Your task to perform on an android device: Find coffee shops on Maps Image 0: 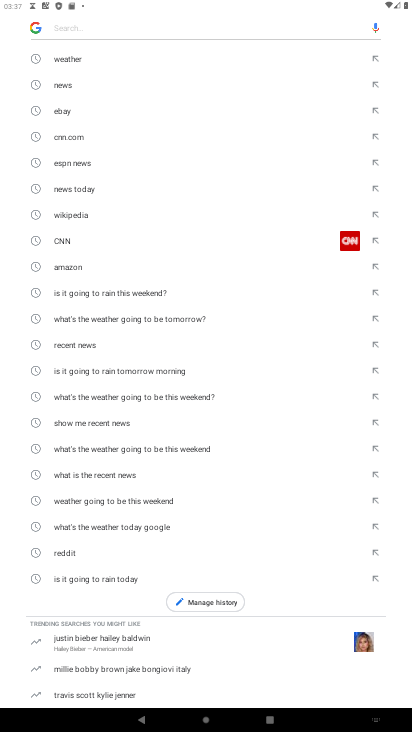
Step 0: press home button
Your task to perform on an android device: Find coffee shops on Maps Image 1: 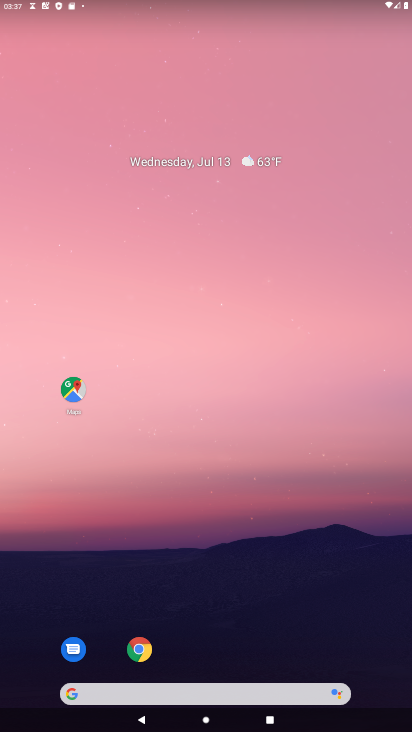
Step 1: click (66, 384)
Your task to perform on an android device: Find coffee shops on Maps Image 2: 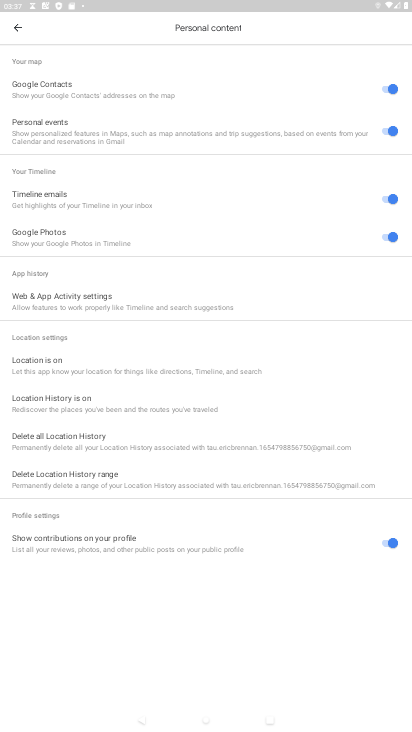
Step 2: click (20, 32)
Your task to perform on an android device: Find coffee shops on Maps Image 3: 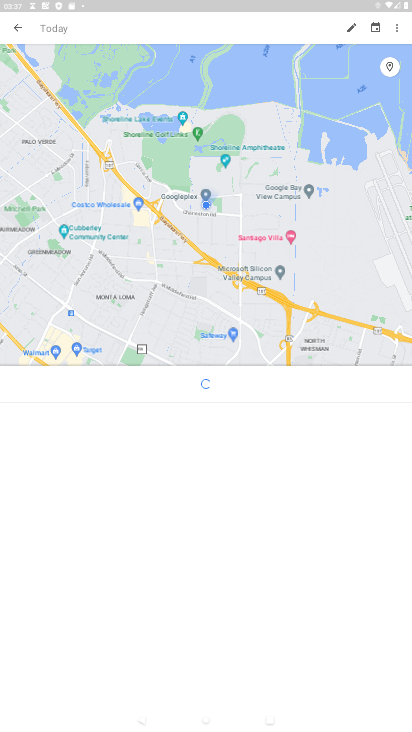
Step 3: click (20, 32)
Your task to perform on an android device: Find coffee shops on Maps Image 4: 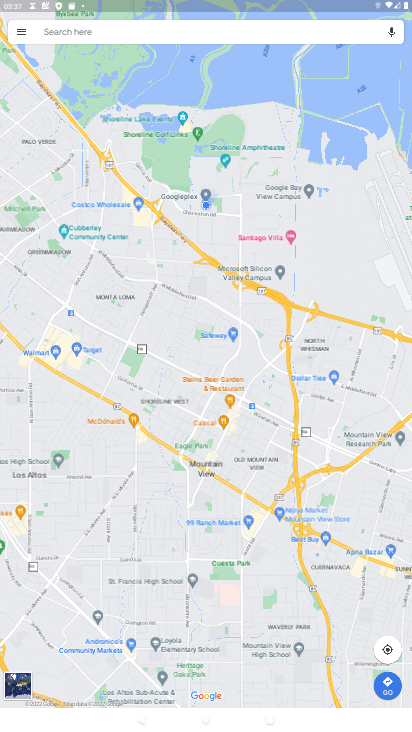
Step 4: click (173, 38)
Your task to perform on an android device: Find coffee shops on Maps Image 5: 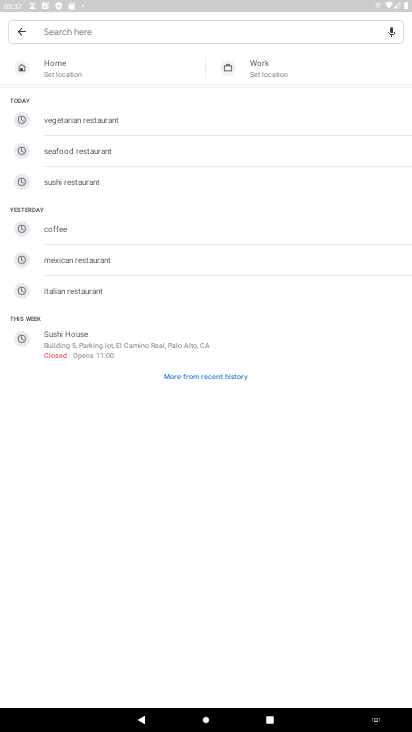
Step 5: type "coffee shops"
Your task to perform on an android device: Find coffee shops on Maps Image 6: 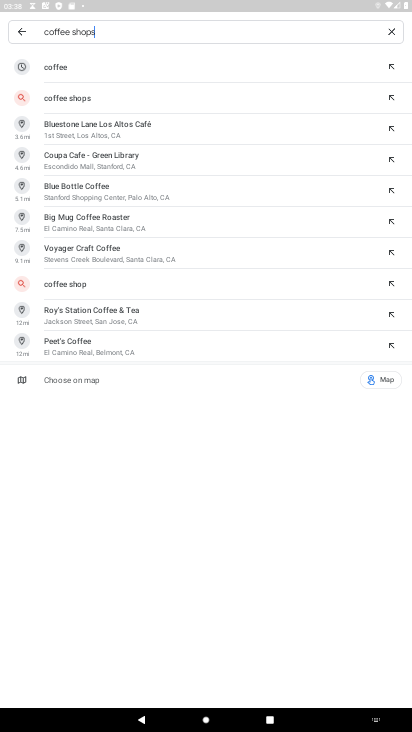
Step 6: click (128, 98)
Your task to perform on an android device: Find coffee shops on Maps Image 7: 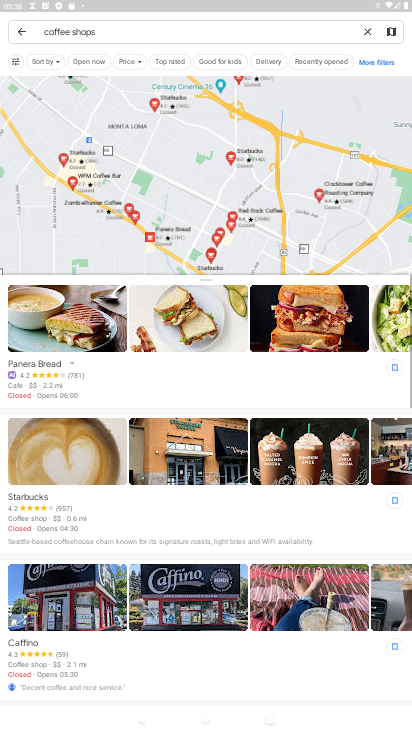
Step 7: task complete